Your task to perform on an android device: search for starred emails in the gmail app Image 0: 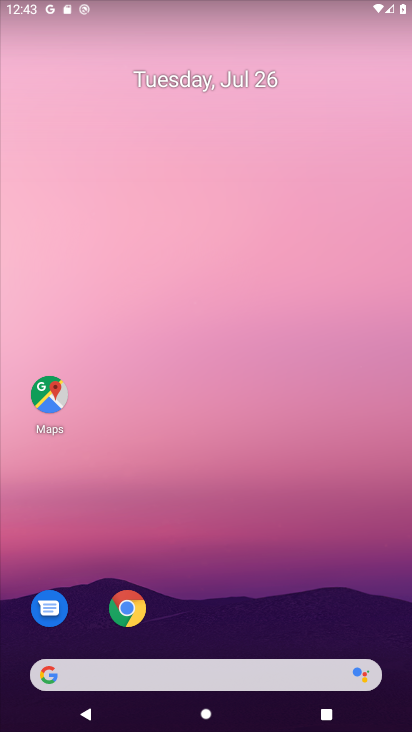
Step 0: drag from (172, 642) to (232, 32)
Your task to perform on an android device: search for starred emails in the gmail app Image 1: 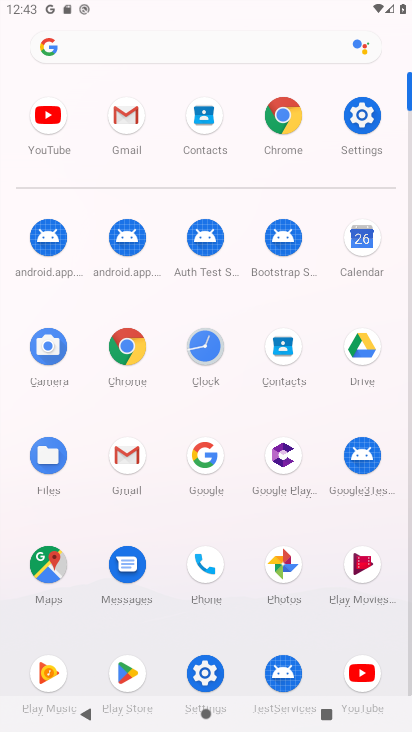
Step 1: click (132, 134)
Your task to perform on an android device: search for starred emails in the gmail app Image 2: 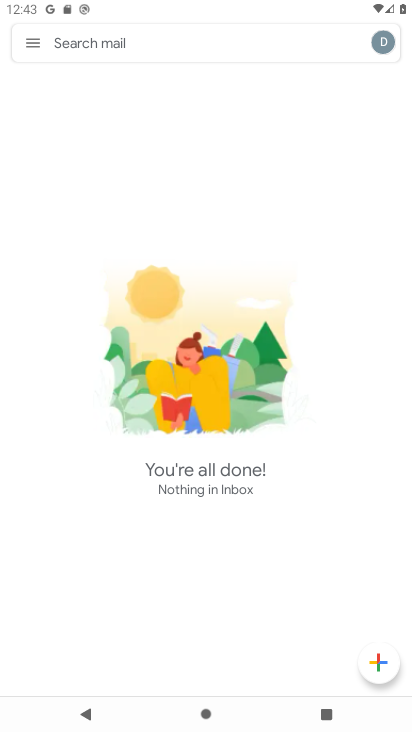
Step 2: click (32, 42)
Your task to perform on an android device: search for starred emails in the gmail app Image 3: 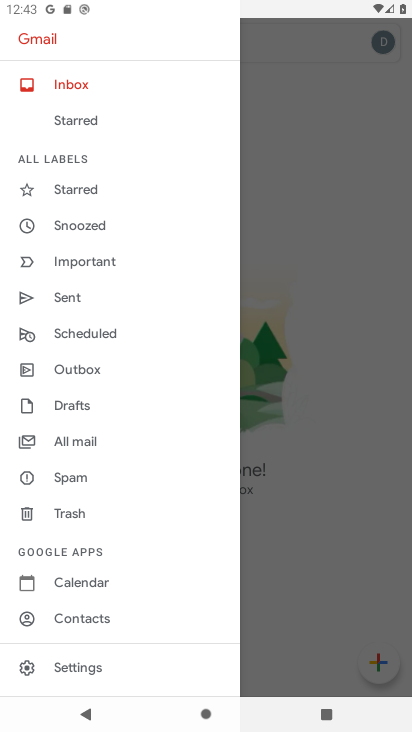
Step 3: click (123, 187)
Your task to perform on an android device: search for starred emails in the gmail app Image 4: 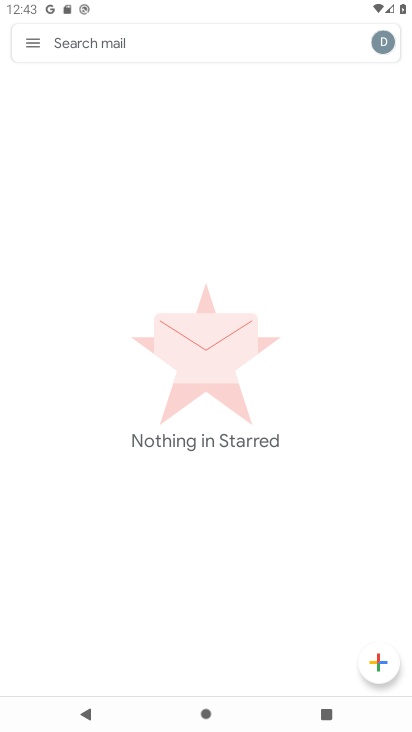
Step 4: task complete